Your task to perform on an android device: install app "Fetch Rewards" Image 0: 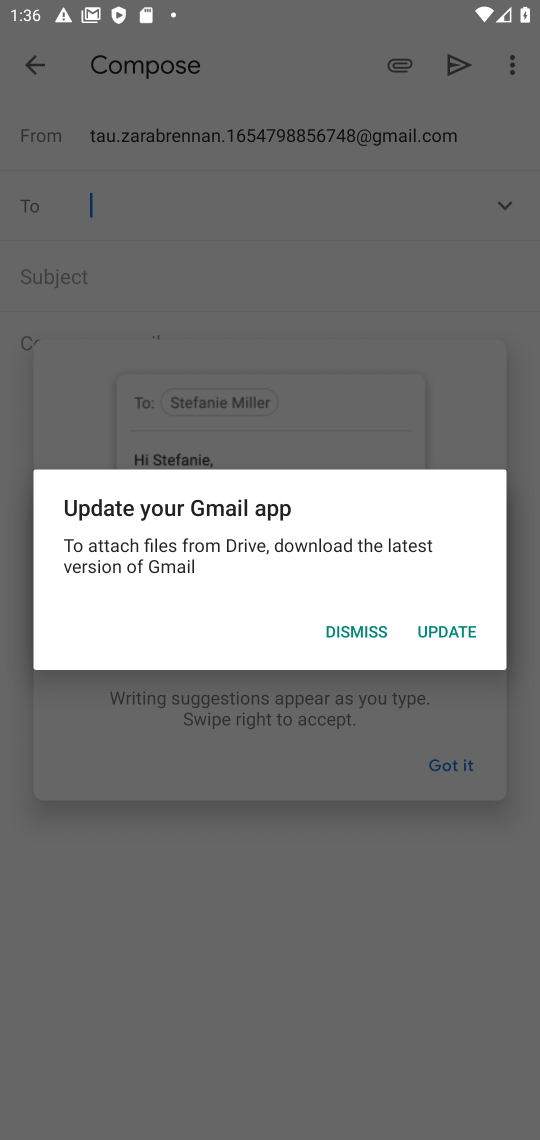
Step 0: press home button
Your task to perform on an android device: install app "Fetch Rewards" Image 1: 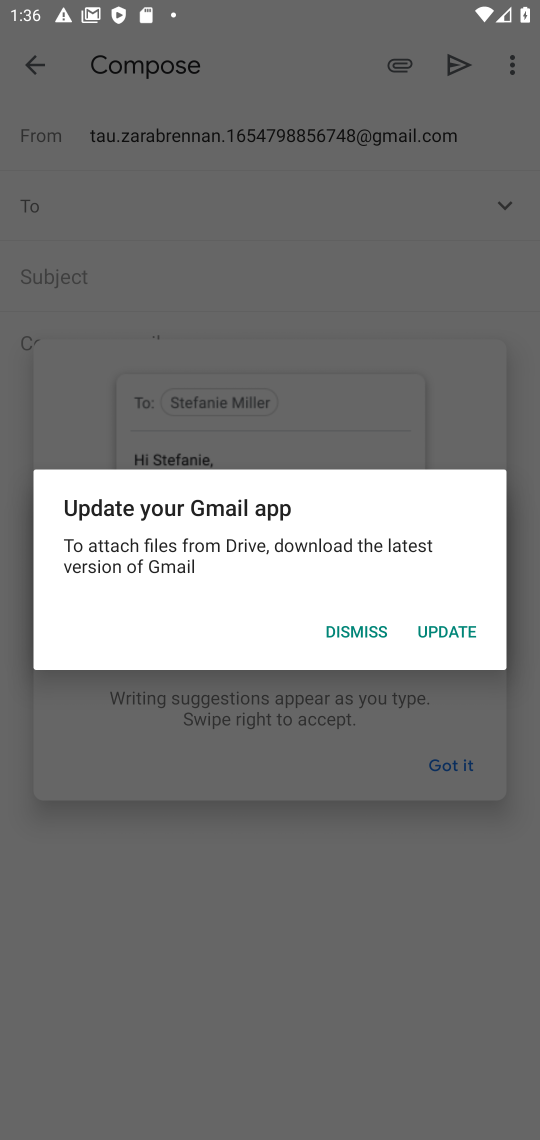
Step 1: press home button
Your task to perform on an android device: install app "Fetch Rewards" Image 2: 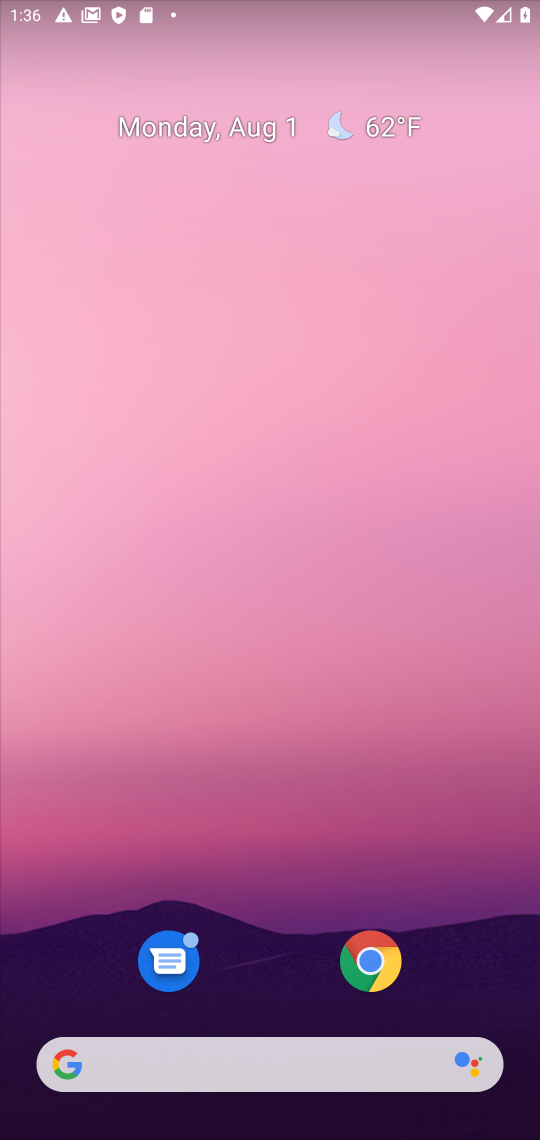
Step 2: drag from (272, 966) to (309, 85)
Your task to perform on an android device: install app "Fetch Rewards" Image 3: 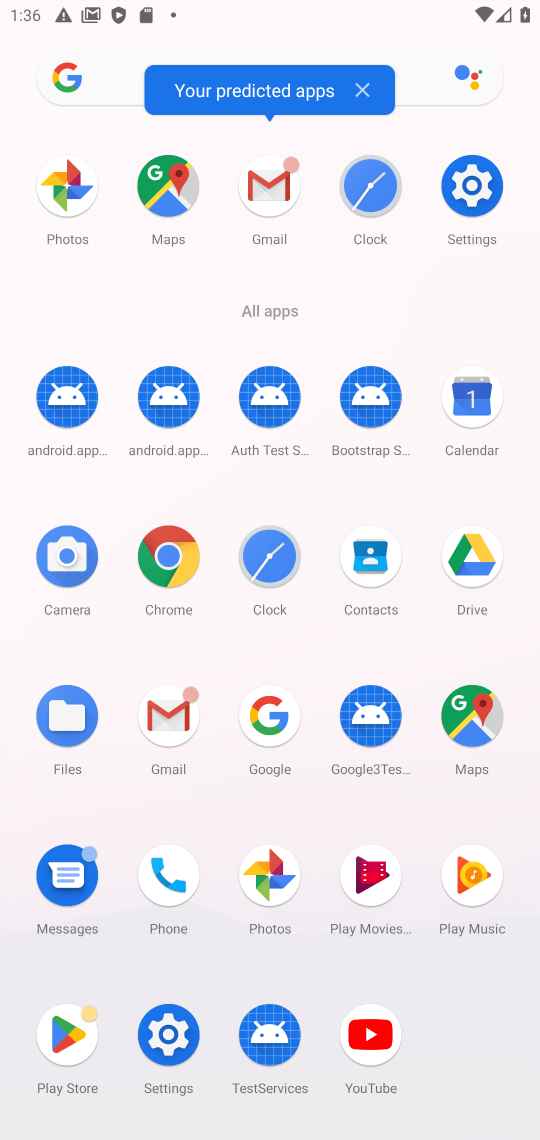
Step 3: click (73, 1025)
Your task to perform on an android device: install app "Fetch Rewards" Image 4: 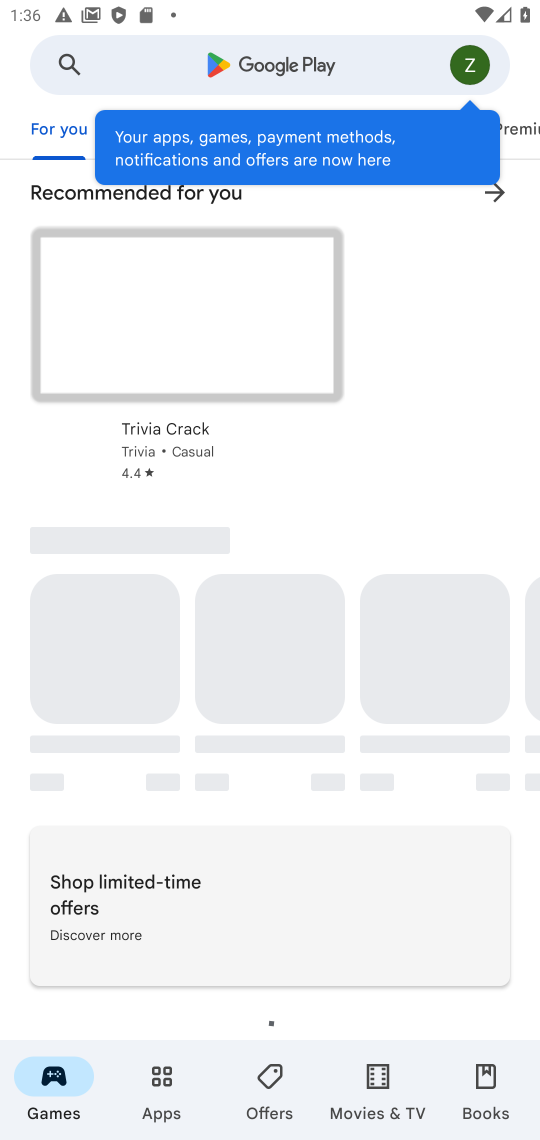
Step 4: click (346, 55)
Your task to perform on an android device: install app "Fetch Rewards" Image 5: 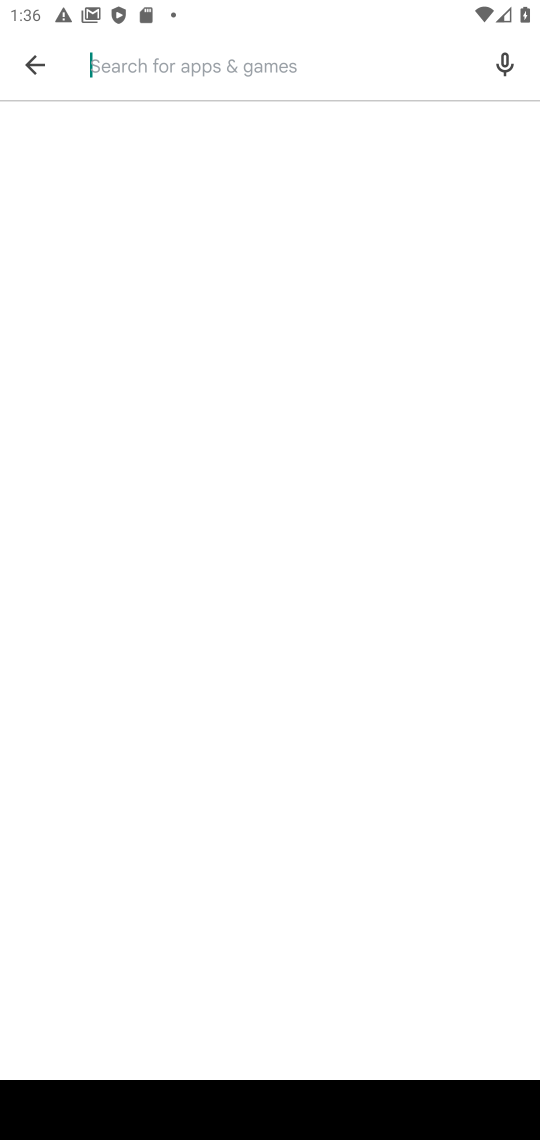
Step 5: type "Fetch Rewards"
Your task to perform on an android device: install app "Fetch Rewards" Image 6: 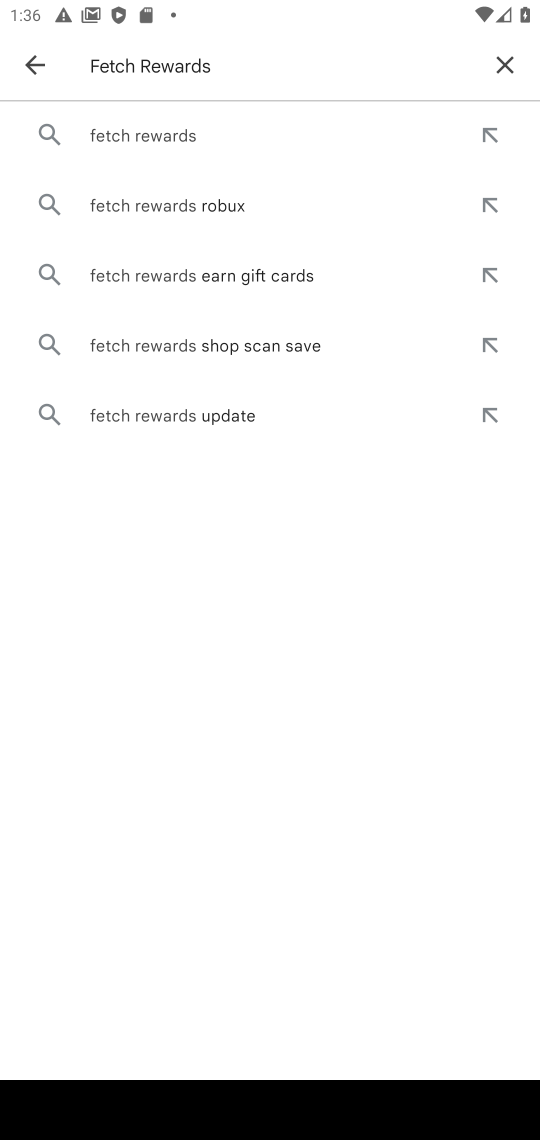
Step 6: press enter
Your task to perform on an android device: install app "Fetch Rewards" Image 7: 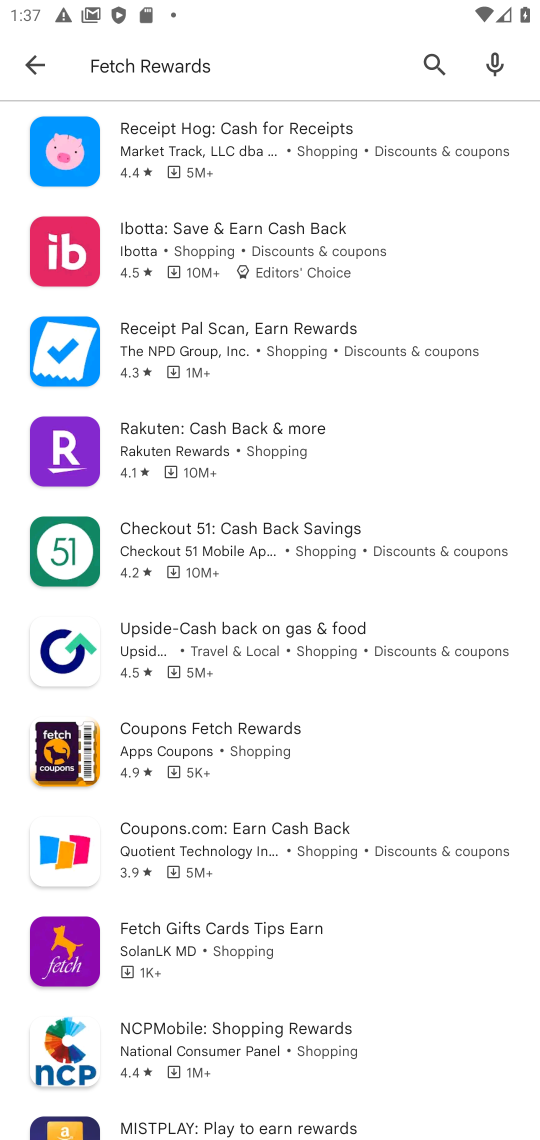
Step 7: task complete